Your task to perform on an android device: check battery use Image 0: 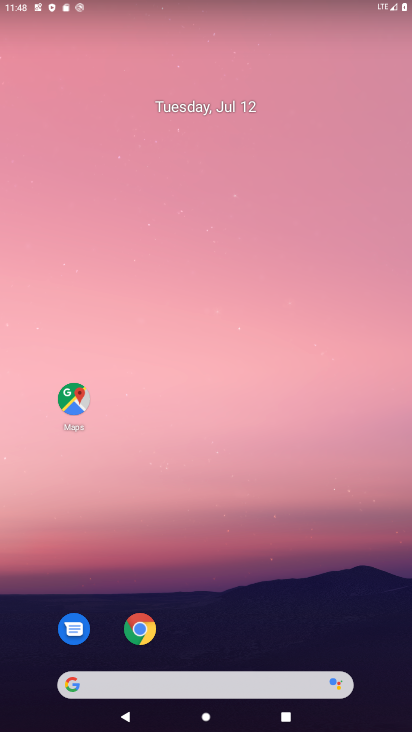
Step 0: press home button
Your task to perform on an android device: check battery use Image 1: 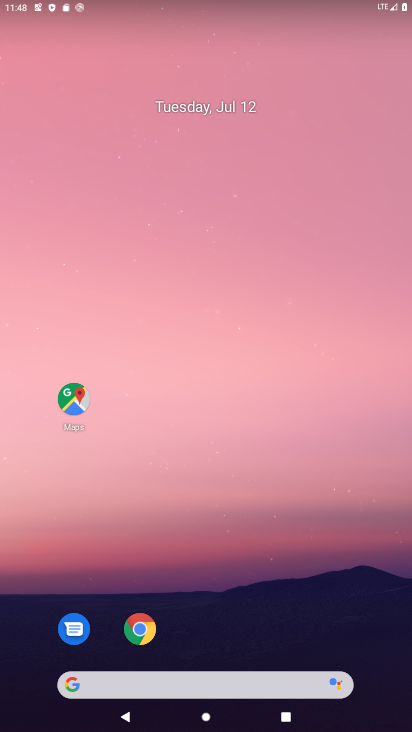
Step 1: drag from (218, 656) to (263, 41)
Your task to perform on an android device: check battery use Image 2: 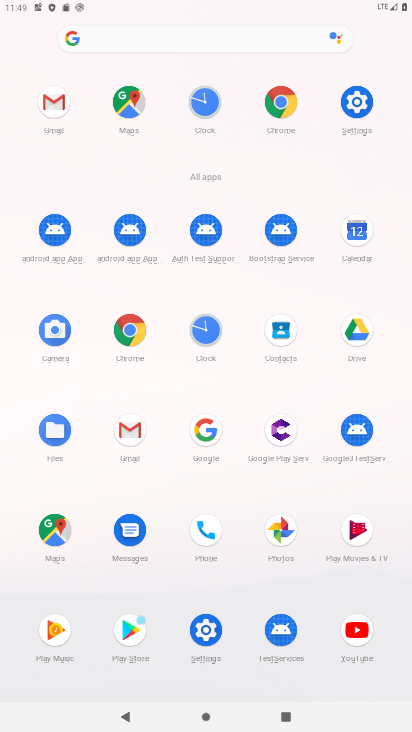
Step 2: click (202, 621)
Your task to perform on an android device: check battery use Image 3: 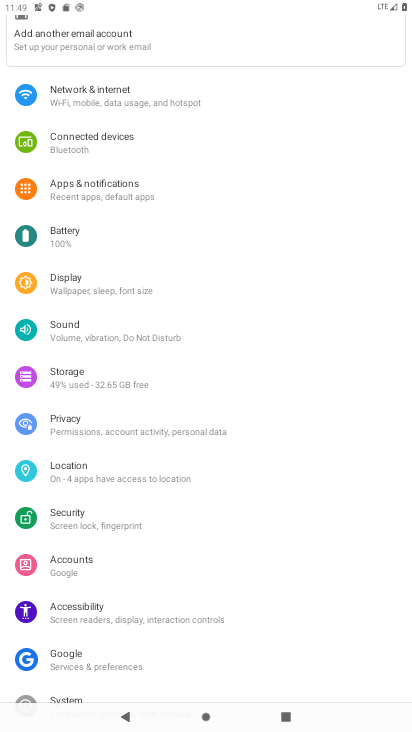
Step 3: click (85, 232)
Your task to perform on an android device: check battery use Image 4: 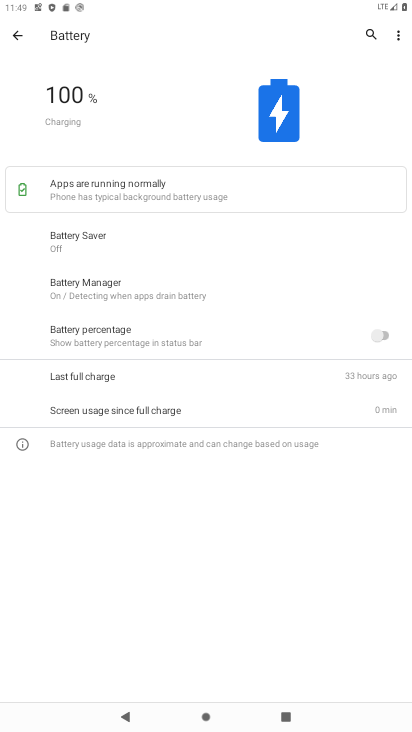
Step 4: click (399, 34)
Your task to perform on an android device: check battery use Image 5: 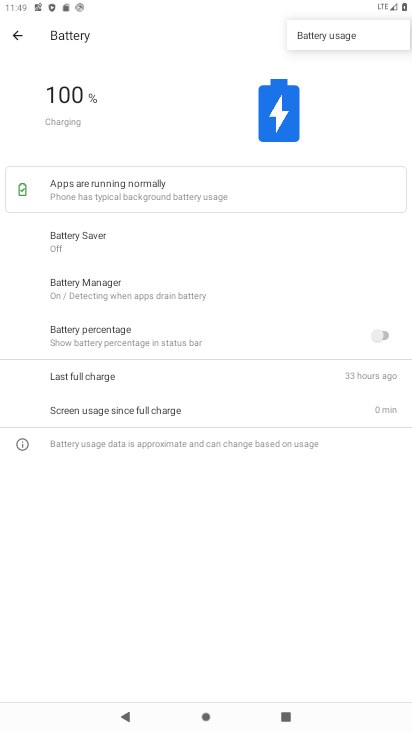
Step 5: click (325, 35)
Your task to perform on an android device: check battery use Image 6: 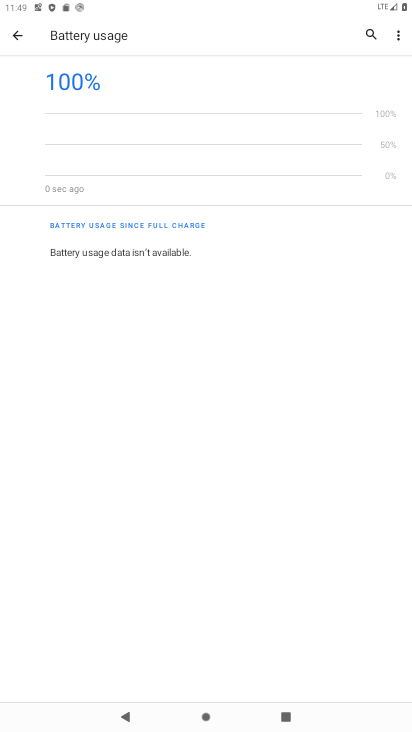
Step 6: task complete